Your task to perform on an android device: toggle airplane mode Image 0: 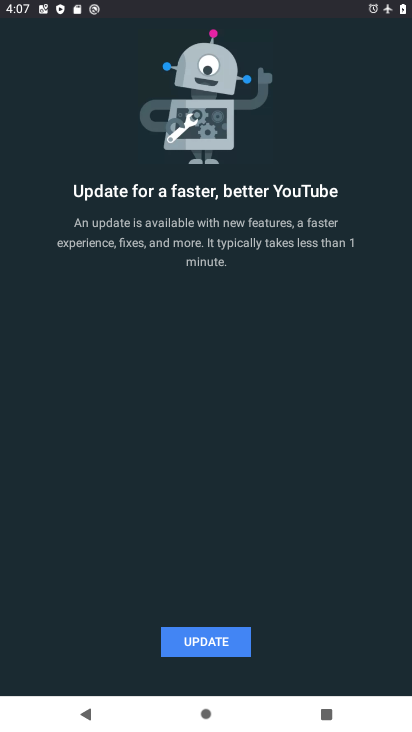
Step 0: press home button
Your task to perform on an android device: toggle airplane mode Image 1: 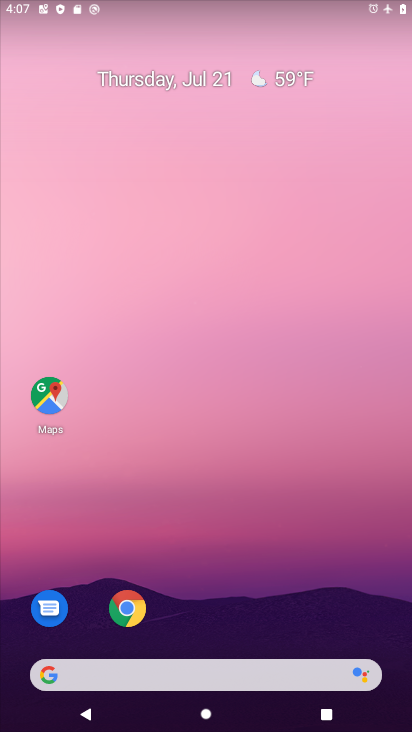
Step 1: drag from (337, 684) to (317, 1)
Your task to perform on an android device: toggle airplane mode Image 2: 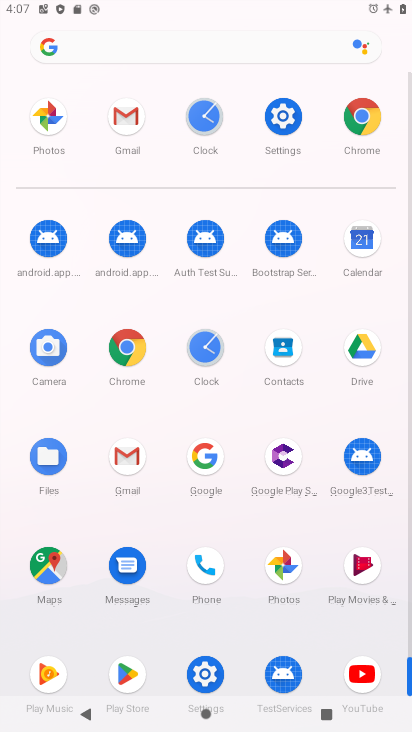
Step 2: click (291, 124)
Your task to perform on an android device: toggle airplane mode Image 3: 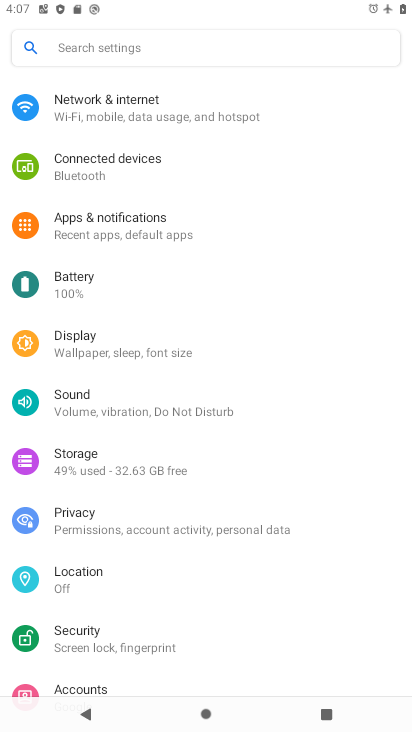
Step 3: click (141, 106)
Your task to perform on an android device: toggle airplane mode Image 4: 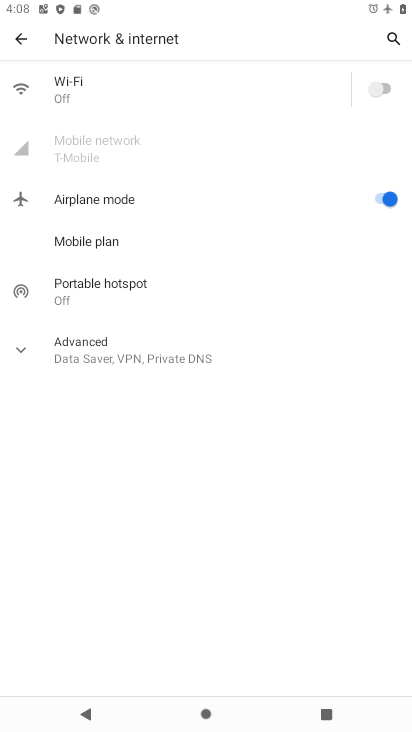
Step 4: click (379, 198)
Your task to perform on an android device: toggle airplane mode Image 5: 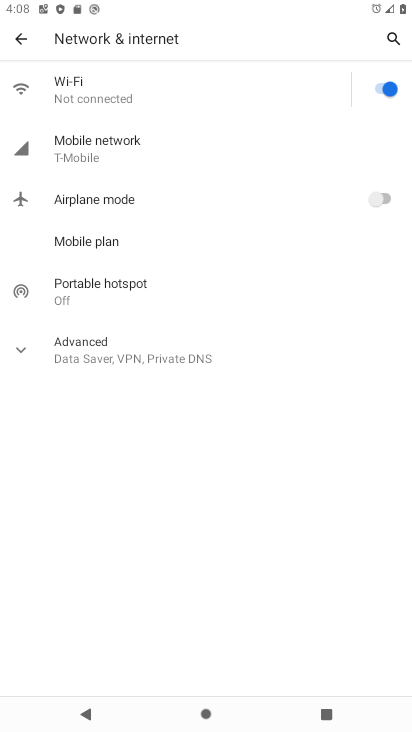
Step 5: task complete